Your task to perform on an android device: toggle notifications settings in the gmail app Image 0: 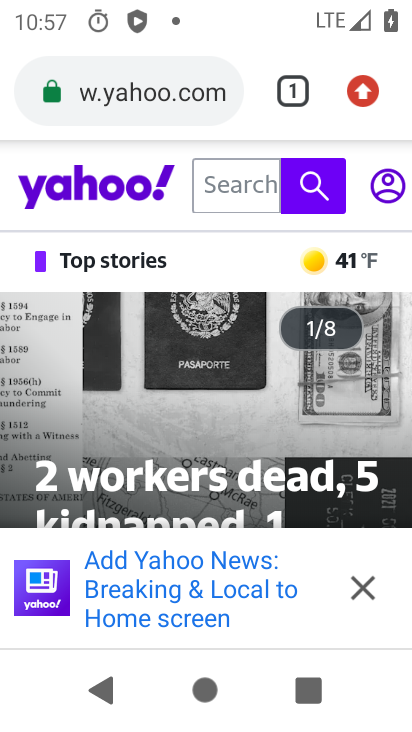
Step 0: press back button
Your task to perform on an android device: toggle notifications settings in the gmail app Image 1: 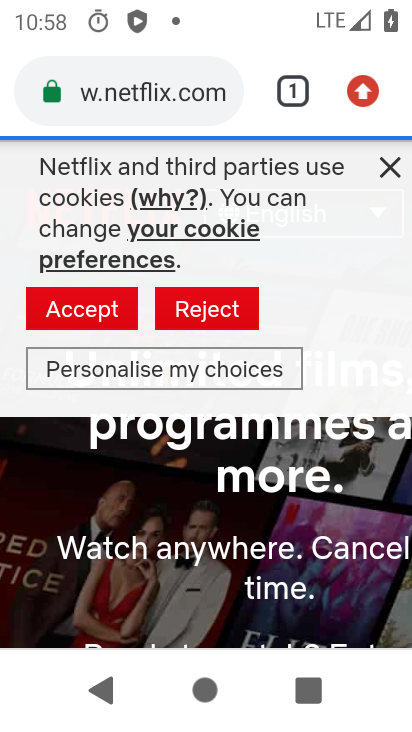
Step 1: press home button
Your task to perform on an android device: toggle notifications settings in the gmail app Image 2: 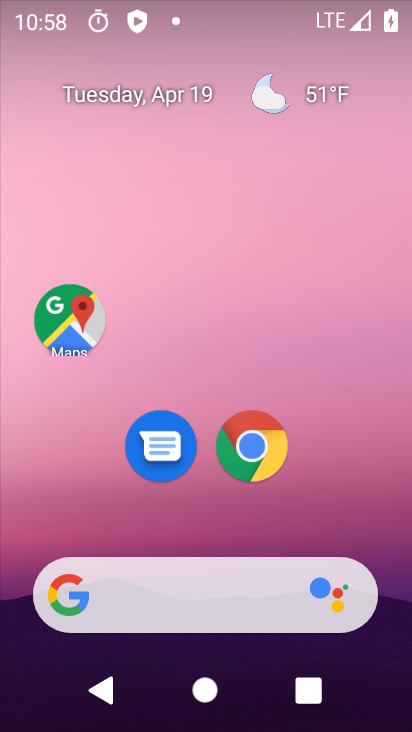
Step 2: drag from (376, 242) to (378, 37)
Your task to perform on an android device: toggle notifications settings in the gmail app Image 3: 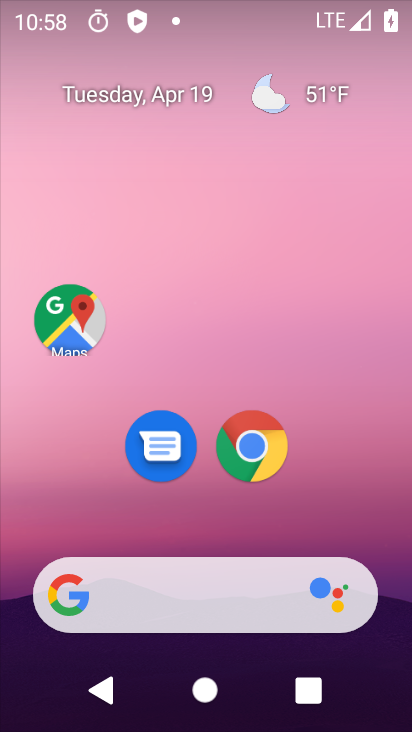
Step 3: drag from (351, 227) to (349, 141)
Your task to perform on an android device: toggle notifications settings in the gmail app Image 4: 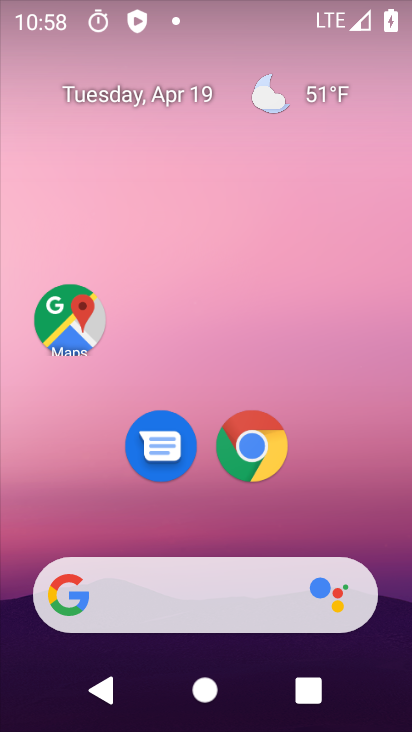
Step 4: drag from (382, 303) to (385, 185)
Your task to perform on an android device: toggle notifications settings in the gmail app Image 5: 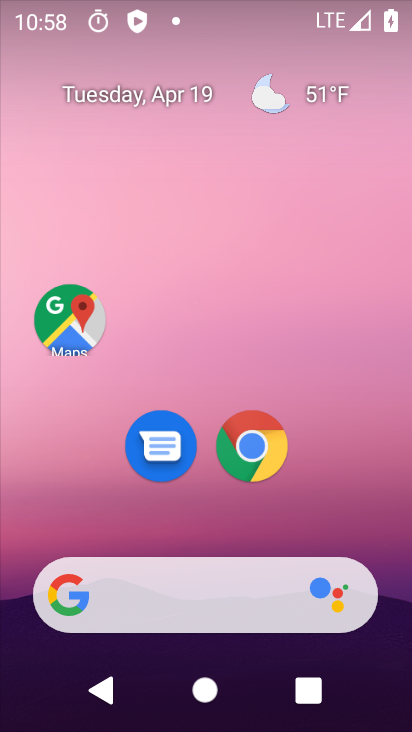
Step 5: drag from (355, 313) to (347, 157)
Your task to perform on an android device: toggle notifications settings in the gmail app Image 6: 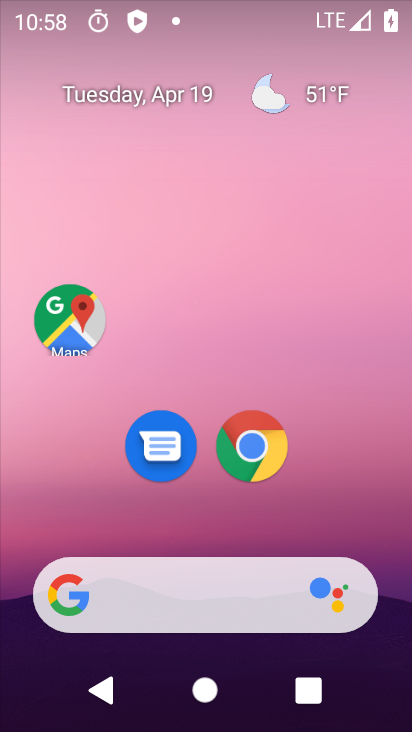
Step 6: drag from (353, 372) to (351, 189)
Your task to perform on an android device: toggle notifications settings in the gmail app Image 7: 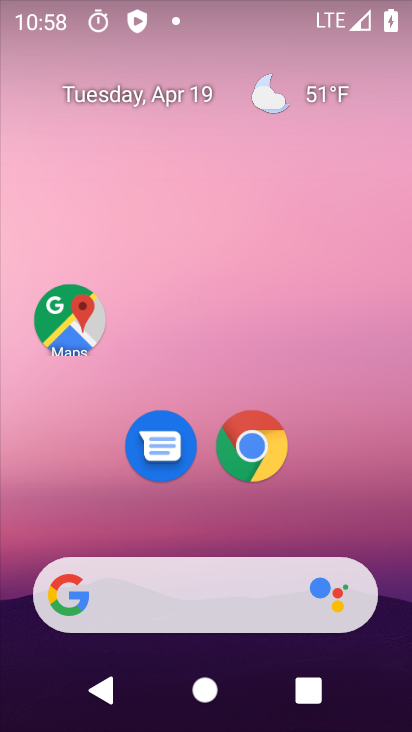
Step 7: click (326, 99)
Your task to perform on an android device: toggle notifications settings in the gmail app Image 8: 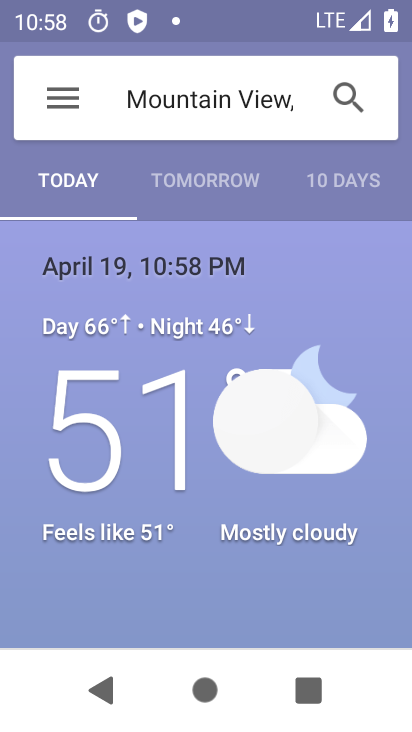
Step 8: press back button
Your task to perform on an android device: toggle notifications settings in the gmail app Image 9: 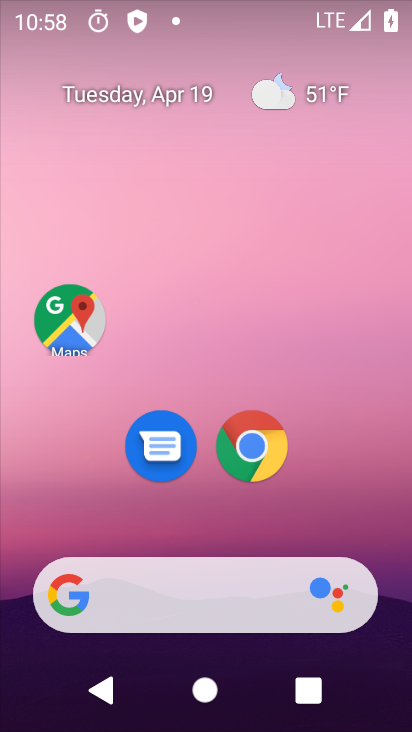
Step 9: drag from (371, 409) to (381, 3)
Your task to perform on an android device: toggle notifications settings in the gmail app Image 10: 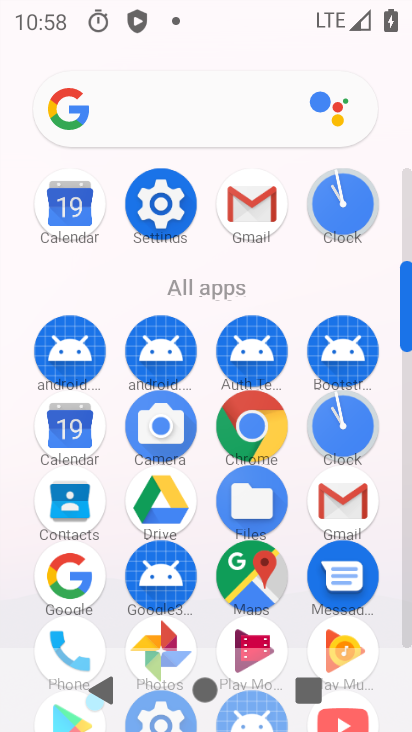
Step 10: click (343, 486)
Your task to perform on an android device: toggle notifications settings in the gmail app Image 11: 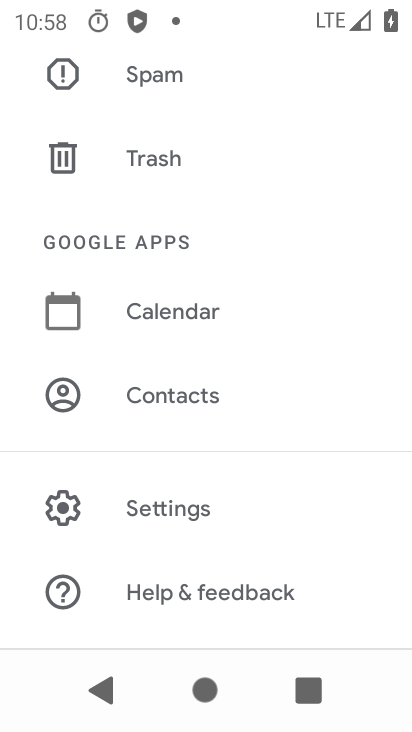
Step 11: click (166, 497)
Your task to perform on an android device: toggle notifications settings in the gmail app Image 12: 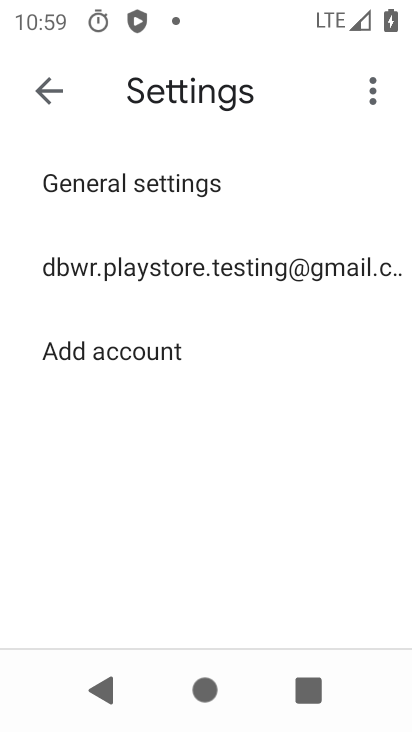
Step 12: click (108, 190)
Your task to perform on an android device: toggle notifications settings in the gmail app Image 13: 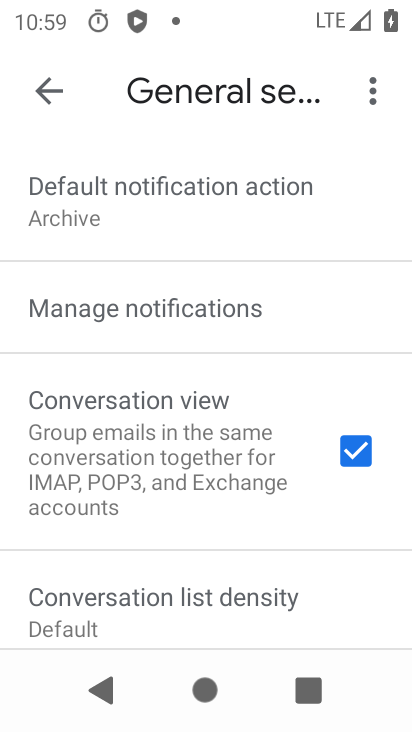
Step 13: click (131, 319)
Your task to perform on an android device: toggle notifications settings in the gmail app Image 14: 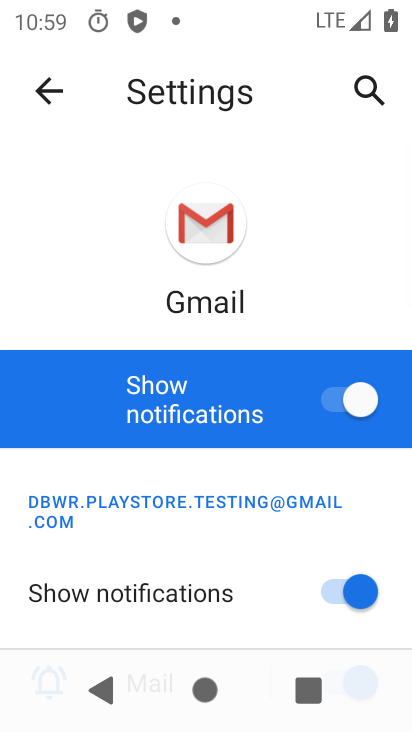
Step 14: drag from (192, 595) to (168, 247)
Your task to perform on an android device: toggle notifications settings in the gmail app Image 15: 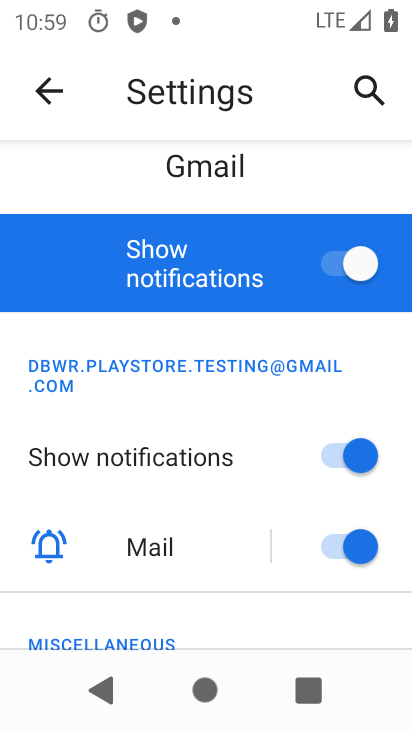
Step 15: drag from (198, 551) to (187, 257)
Your task to perform on an android device: toggle notifications settings in the gmail app Image 16: 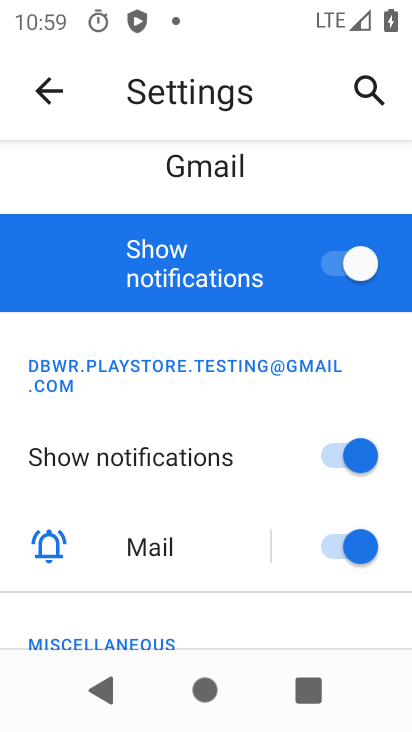
Step 16: click (328, 452)
Your task to perform on an android device: toggle notifications settings in the gmail app Image 17: 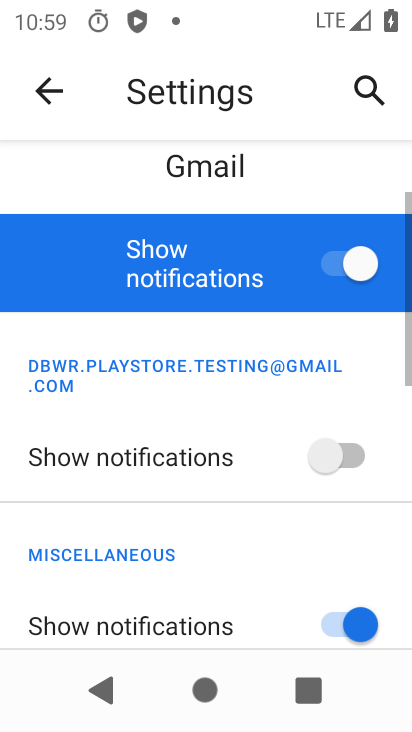
Step 17: click (328, 555)
Your task to perform on an android device: toggle notifications settings in the gmail app Image 18: 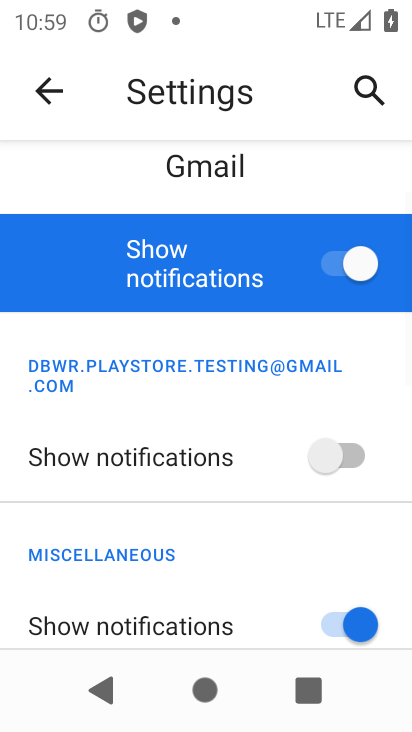
Step 18: drag from (216, 557) to (208, 373)
Your task to perform on an android device: toggle notifications settings in the gmail app Image 19: 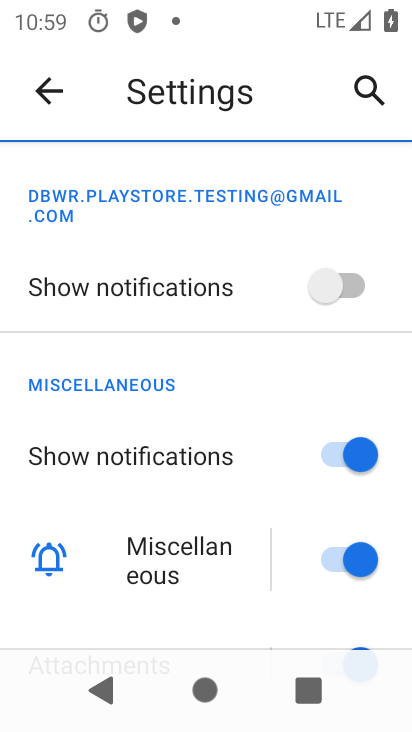
Step 19: click (314, 457)
Your task to perform on an android device: toggle notifications settings in the gmail app Image 20: 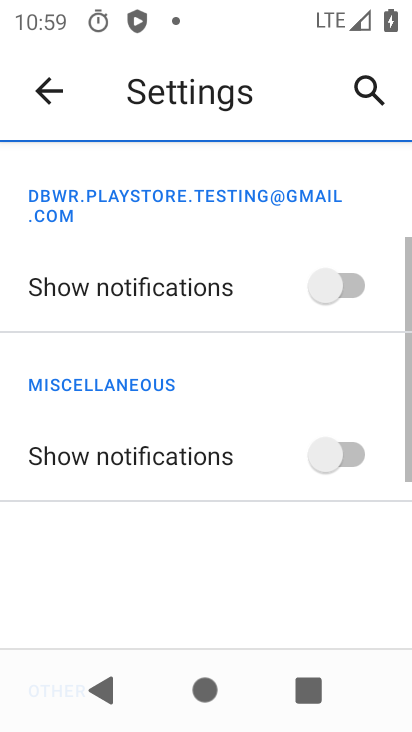
Step 20: click (328, 570)
Your task to perform on an android device: toggle notifications settings in the gmail app Image 21: 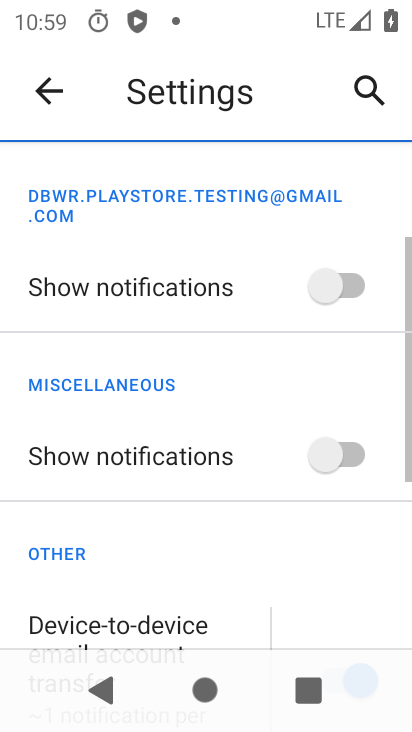
Step 21: drag from (272, 574) to (245, 254)
Your task to perform on an android device: toggle notifications settings in the gmail app Image 22: 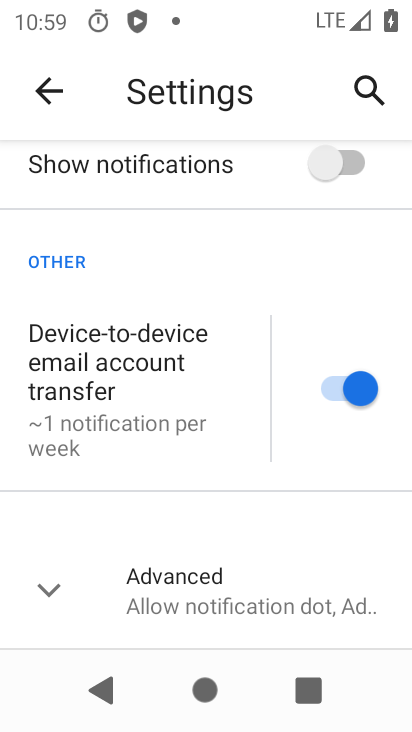
Step 22: click (328, 385)
Your task to perform on an android device: toggle notifications settings in the gmail app Image 23: 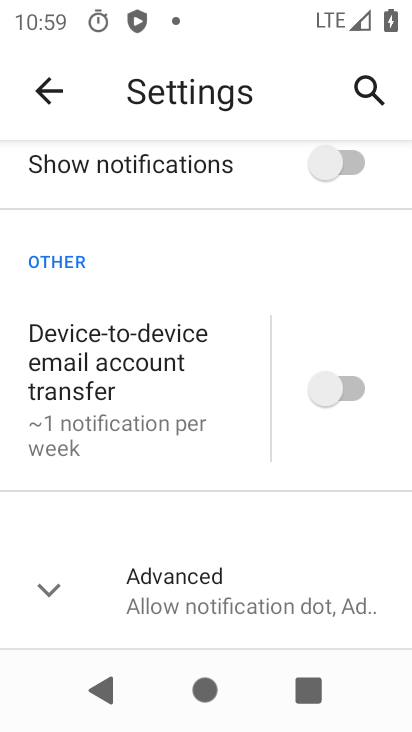
Step 23: task complete